Your task to perform on an android device: turn on data saver in the chrome app Image 0: 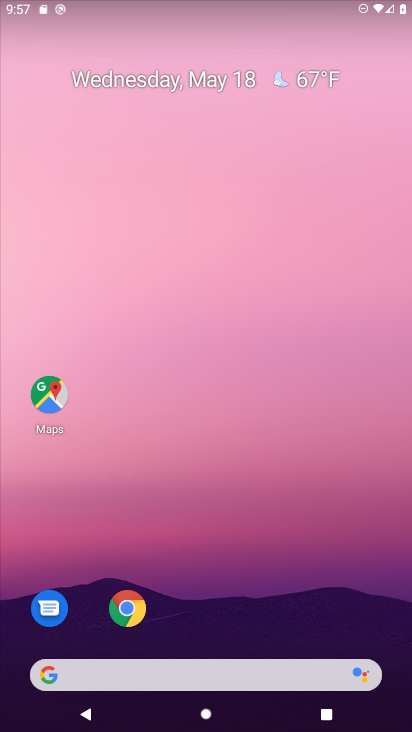
Step 0: click (137, 611)
Your task to perform on an android device: turn on data saver in the chrome app Image 1: 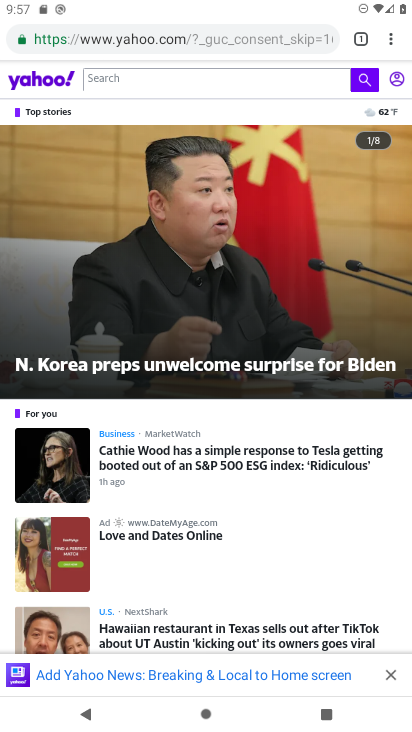
Step 1: click (393, 39)
Your task to perform on an android device: turn on data saver in the chrome app Image 2: 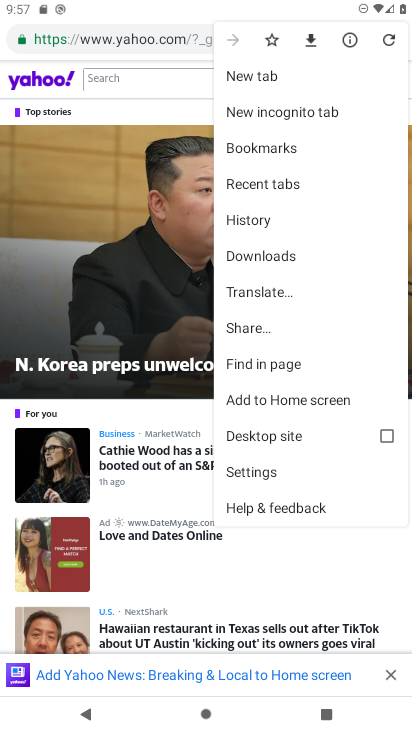
Step 2: click (264, 474)
Your task to perform on an android device: turn on data saver in the chrome app Image 3: 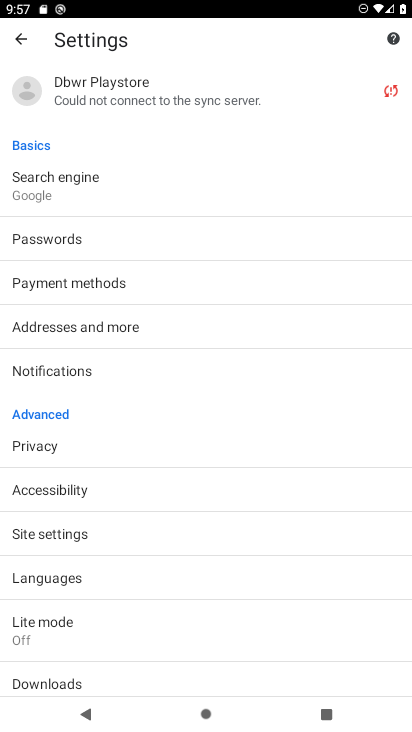
Step 3: click (67, 637)
Your task to perform on an android device: turn on data saver in the chrome app Image 4: 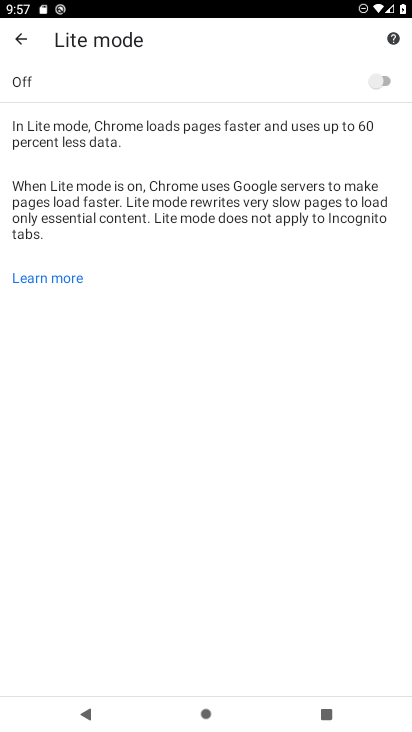
Step 4: click (377, 89)
Your task to perform on an android device: turn on data saver in the chrome app Image 5: 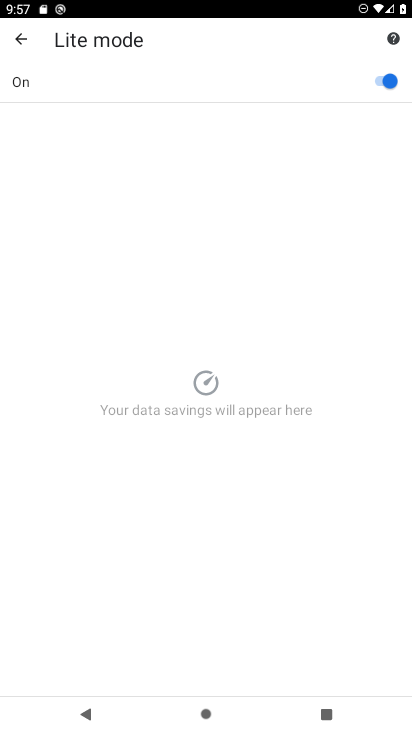
Step 5: task complete